Your task to perform on an android device: manage bookmarks in the chrome app Image 0: 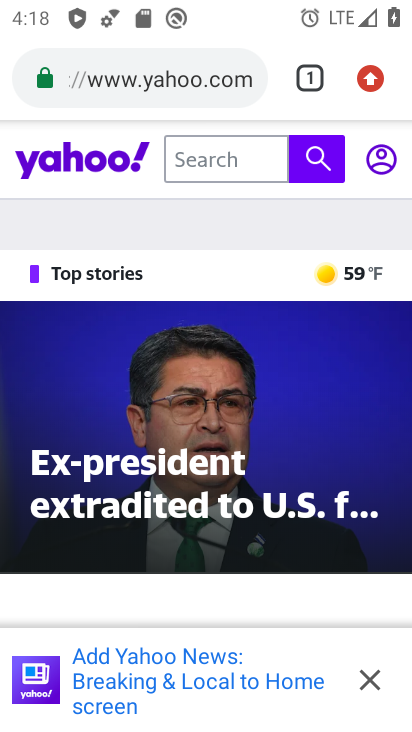
Step 0: click (371, 682)
Your task to perform on an android device: manage bookmarks in the chrome app Image 1: 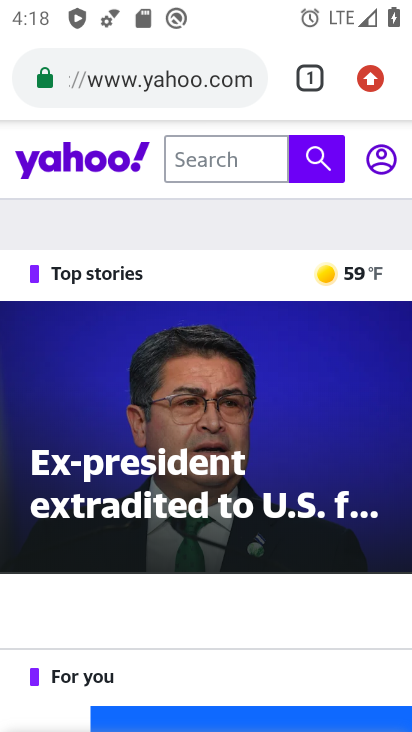
Step 1: click (362, 77)
Your task to perform on an android device: manage bookmarks in the chrome app Image 2: 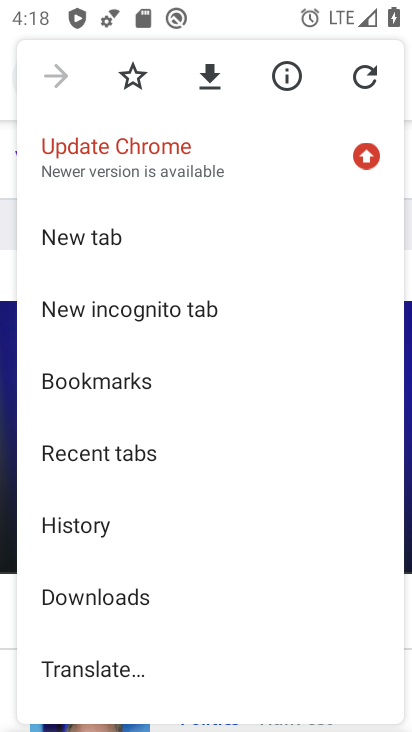
Step 2: click (118, 389)
Your task to perform on an android device: manage bookmarks in the chrome app Image 3: 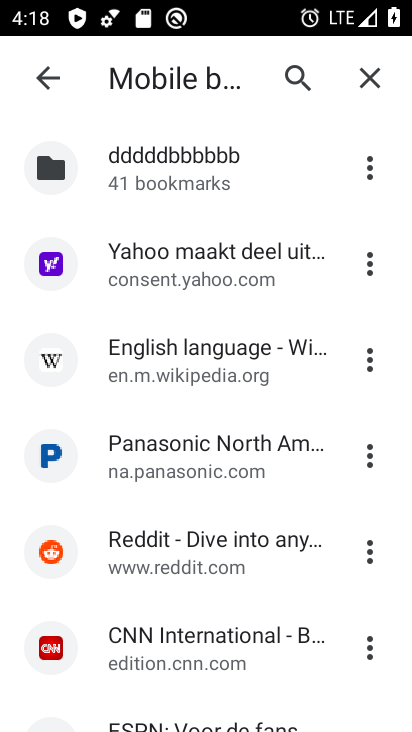
Step 3: click (374, 265)
Your task to perform on an android device: manage bookmarks in the chrome app Image 4: 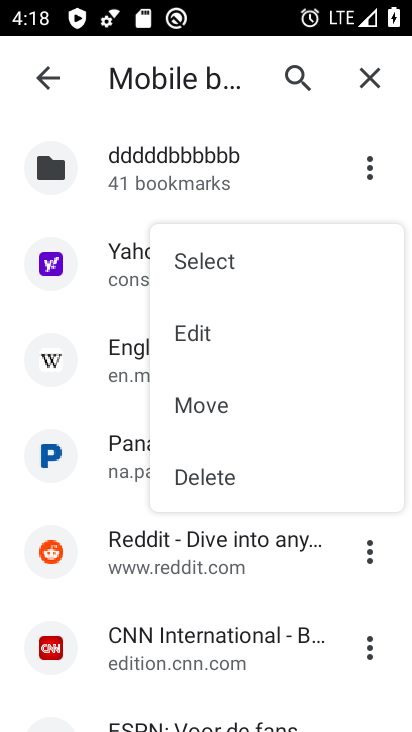
Step 4: click (223, 261)
Your task to perform on an android device: manage bookmarks in the chrome app Image 5: 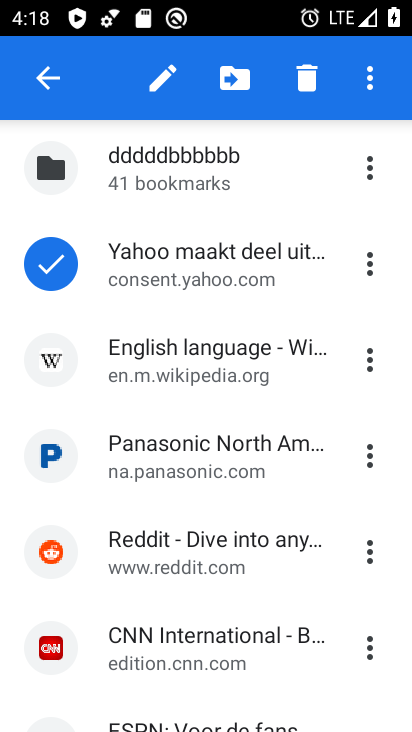
Step 5: click (53, 348)
Your task to perform on an android device: manage bookmarks in the chrome app Image 6: 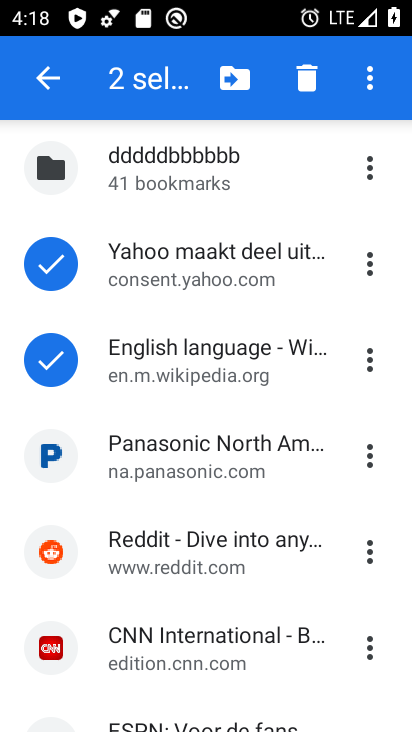
Step 6: click (47, 446)
Your task to perform on an android device: manage bookmarks in the chrome app Image 7: 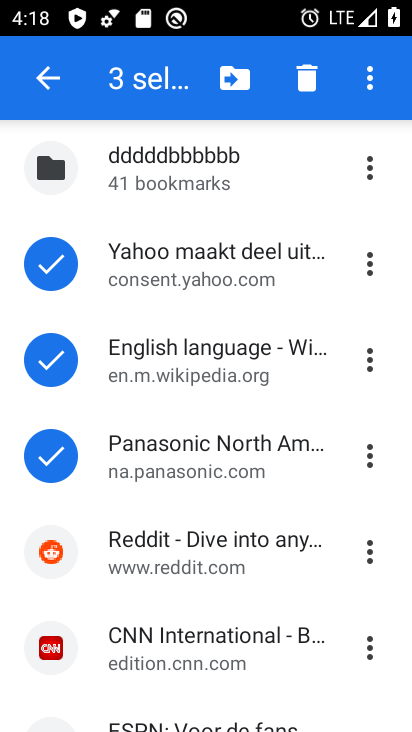
Step 7: click (58, 573)
Your task to perform on an android device: manage bookmarks in the chrome app Image 8: 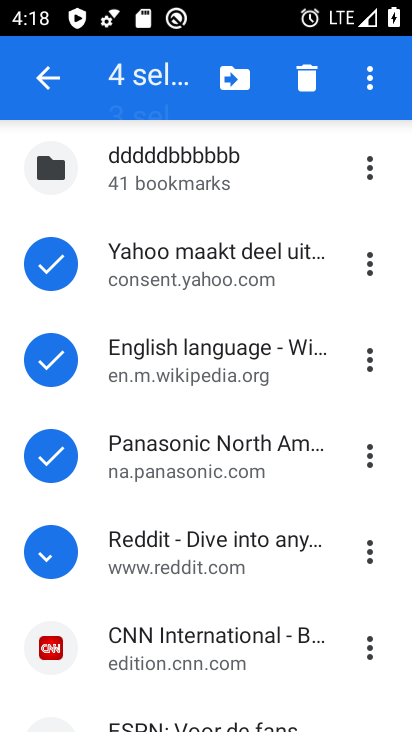
Step 8: click (49, 631)
Your task to perform on an android device: manage bookmarks in the chrome app Image 9: 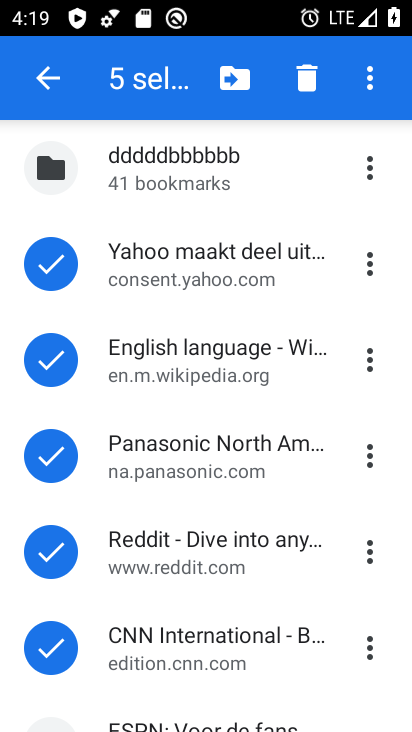
Step 9: drag from (125, 625) to (285, 6)
Your task to perform on an android device: manage bookmarks in the chrome app Image 10: 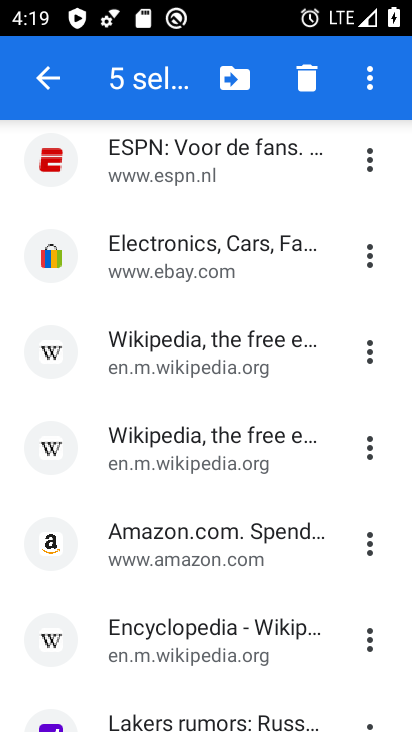
Step 10: click (55, 168)
Your task to perform on an android device: manage bookmarks in the chrome app Image 11: 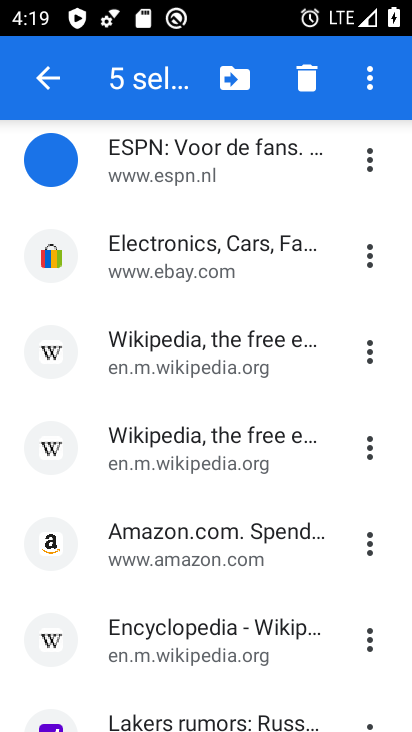
Step 11: click (52, 244)
Your task to perform on an android device: manage bookmarks in the chrome app Image 12: 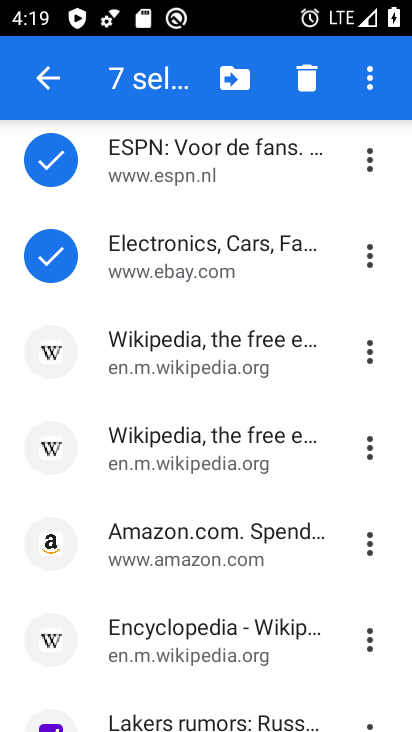
Step 12: click (38, 349)
Your task to perform on an android device: manage bookmarks in the chrome app Image 13: 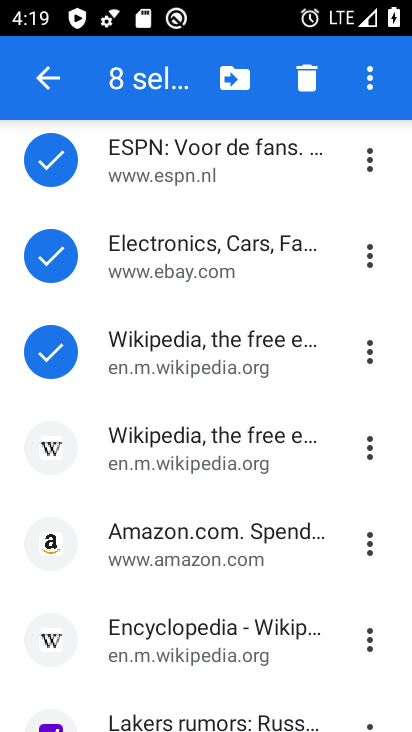
Step 13: click (40, 439)
Your task to perform on an android device: manage bookmarks in the chrome app Image 14: 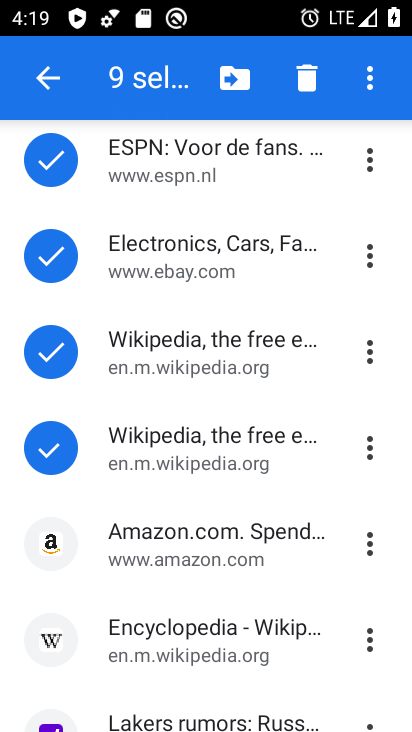
Step 14: click (51, 540)
Your task to perform on an android device: manage bookmarks in the chrome app Image 15: 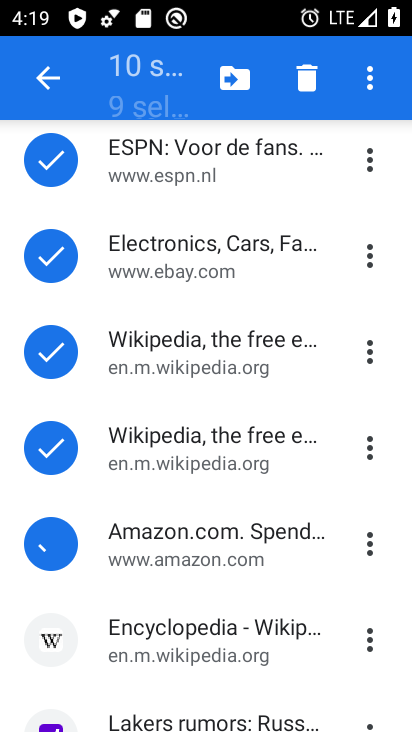
Step 15: click (56, 645)
Your task to perform on an android device: manage bookmarks in the chrome app Image 16: 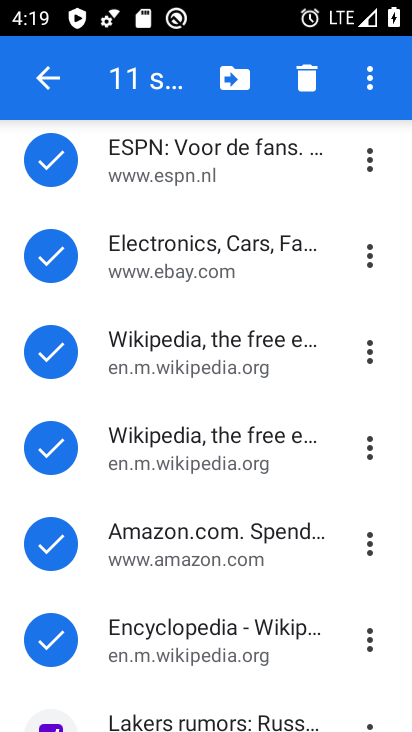
Step 16: click (226, 85)
Your task to perform on an android device: manage bookmarks in the chrome app Image 17: 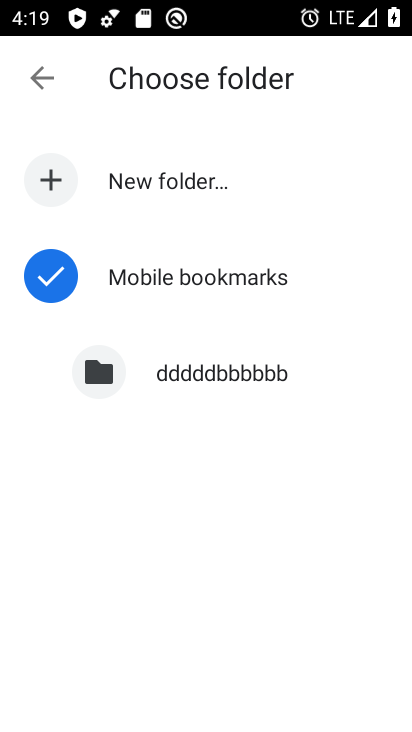
Step 17: click (199, 370)
Your task to perform on an android device: manage bookmarks in the chrome app Image 18: 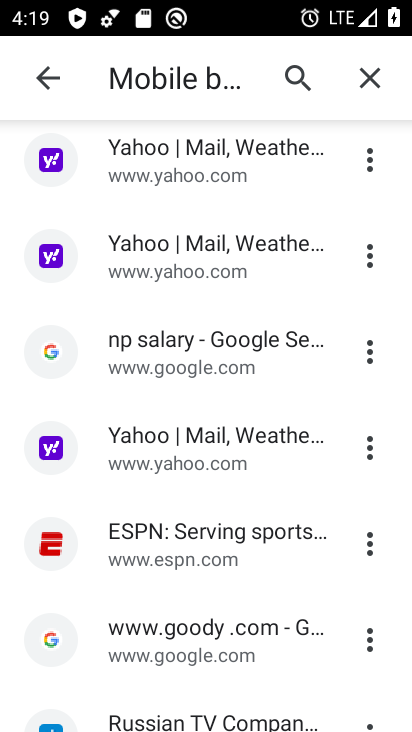
Step 18: task complete